Your task to perform on an android device: turn vacation reply on in the gmail app Image 0: 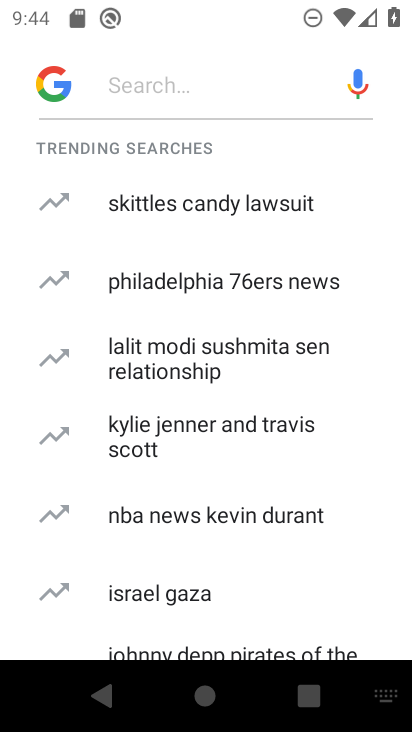
Step 0: press home button
Your task to perform on an android device: turn vacation reply on in the gmail app Image 1: 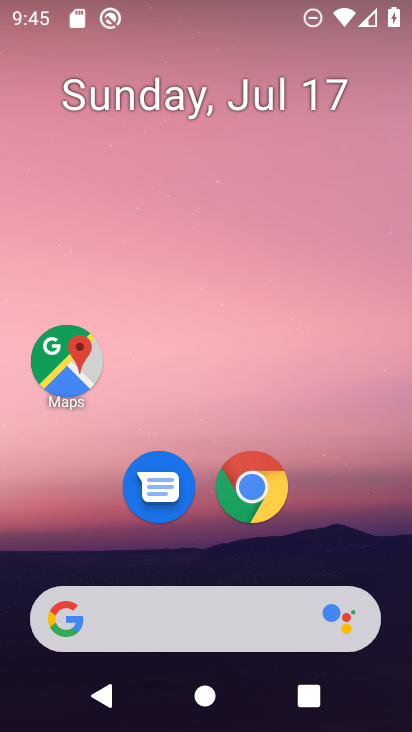
Step 1: drag from (287, 572) to (355, 49)
Your task to perform on an android device: turn vacation reply on in the gmail app Image 2: 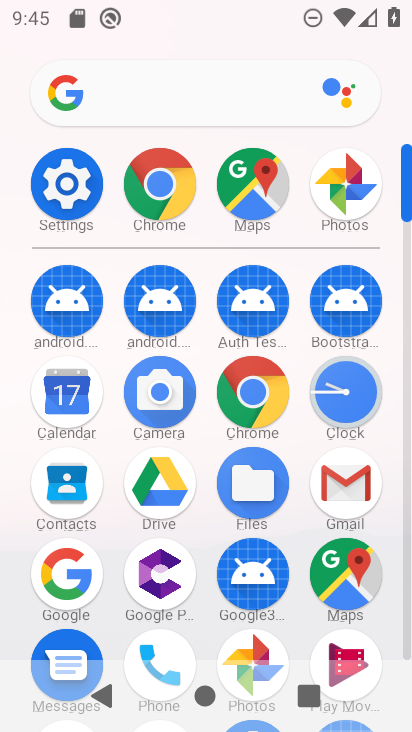
Step 2: click (335, 478)
Your task to perform on an android device: turn vacation reply on in the gmail app Image 3: 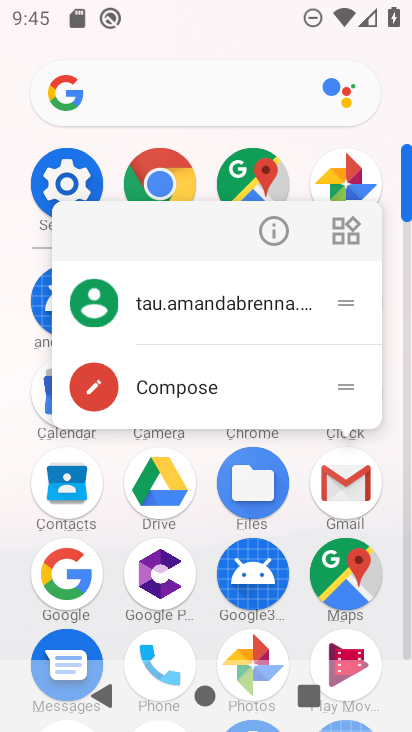
Step 3: click (357, 471)
Your task to perform on an android device: turn vacation reply on in the gmail app Image 4: 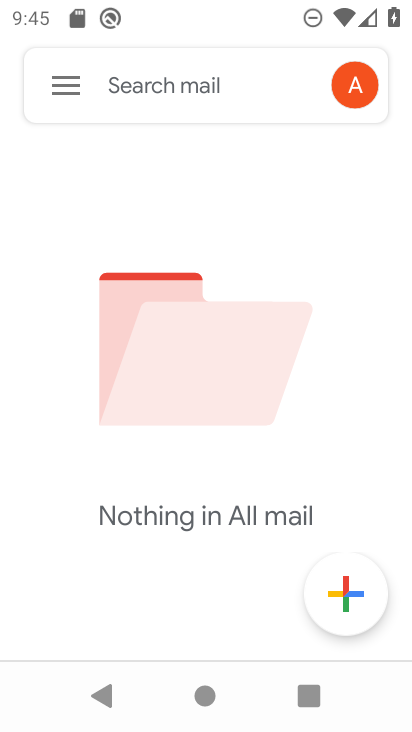
Step 4: click (81, 72)
Your task to perform on an android device: turn vacation reply on in the gmail app Image 5: 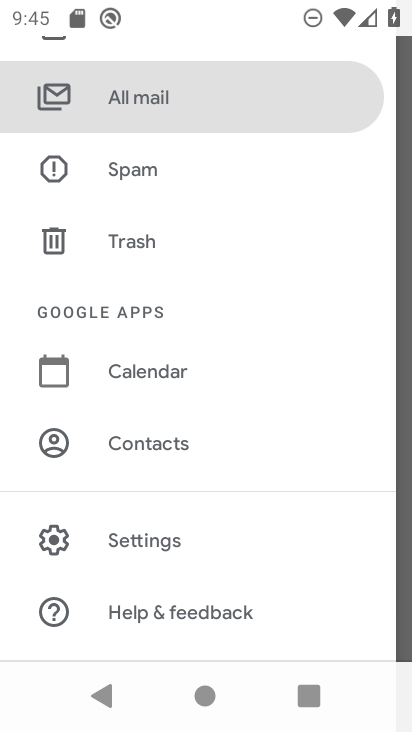
Step 5: click (140, 548)
Your task to perform on an android device: turn vacation reply on in the gmail app Image 6: 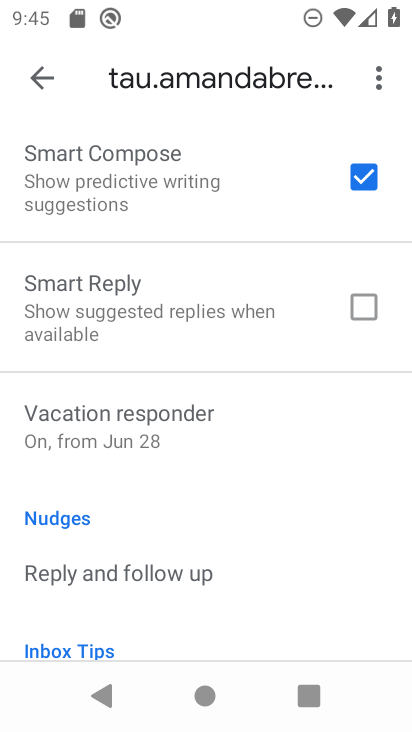
Step 6: drag from (300, 526) to (287, 147)
Your task to perform on an android device: turn vacation reply on in the gmail app Image 7: 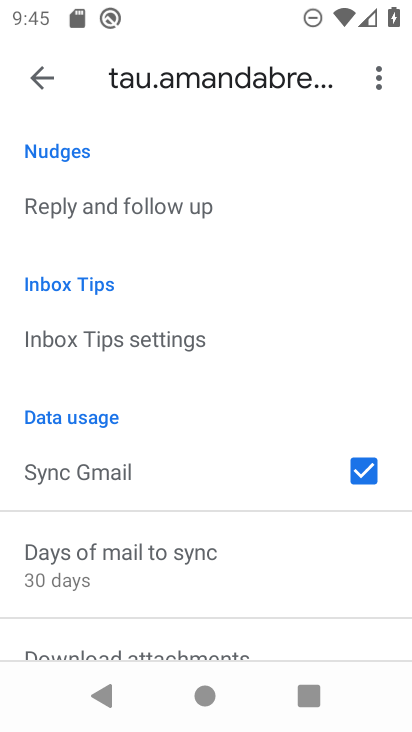
Step 7: drag from (332, 170) to (333, 655)
Your task to perform on an android device: turn vacation reply on in the gmail app Image 8: 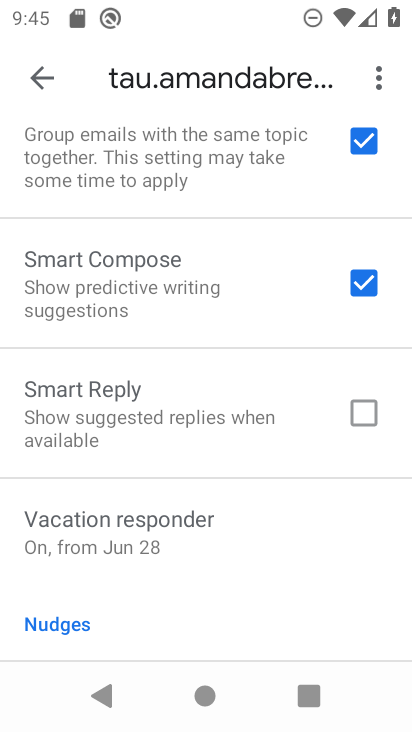
Step 8: click (105, 526)
Your task to perform on an android device: turn vacation reply on in the gmail app Image 9: 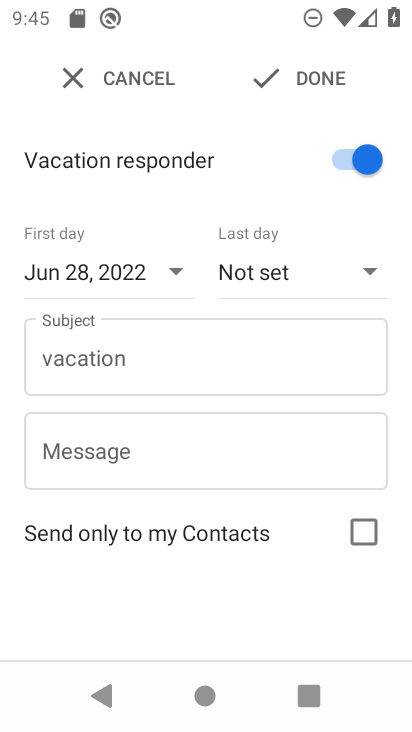
Step 9: task complete